Your task to perform on an android device: change text size in settings app Image 0: 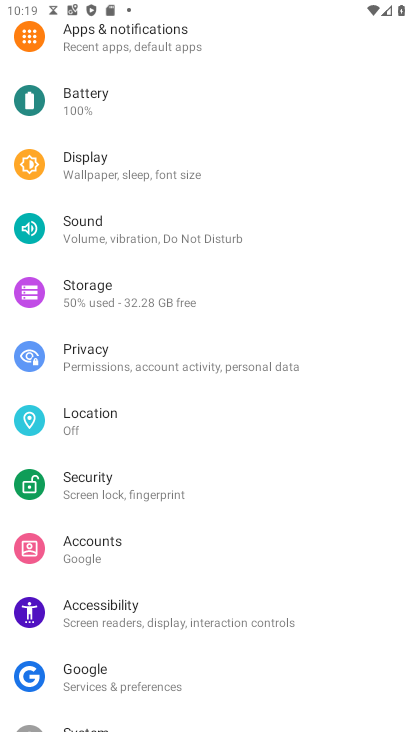
Step 0: click (141, 159)
Your task to perform on an android device: change text size in settings app Image 1: 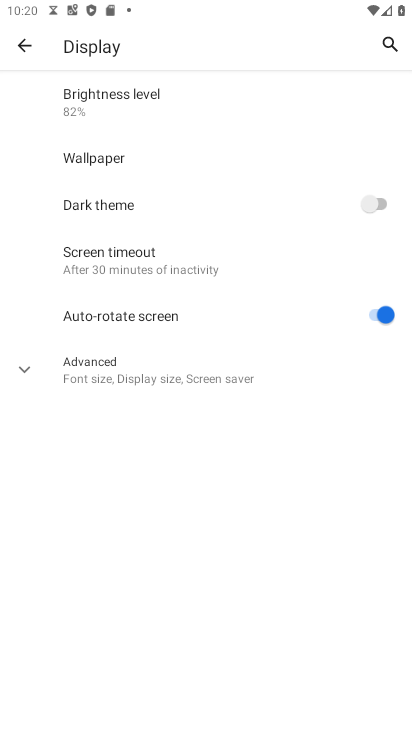
Step 1: click (95, 369)
Your task to perform on an android device: change text size in settings app Image 2: 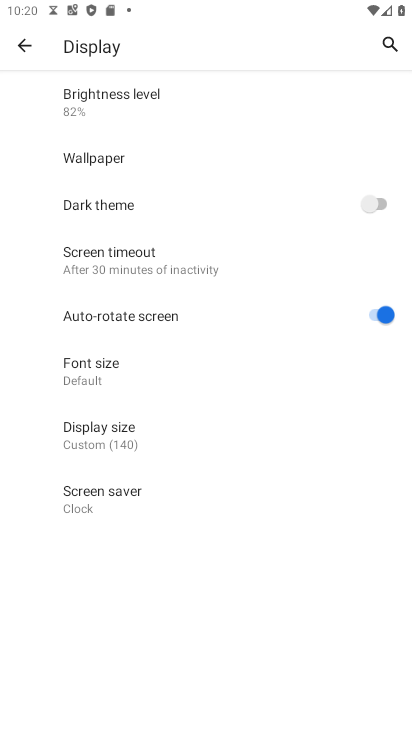
Step 2: click (95, 369)
Your task to perform on an android device: change text size in settings app Image 3: 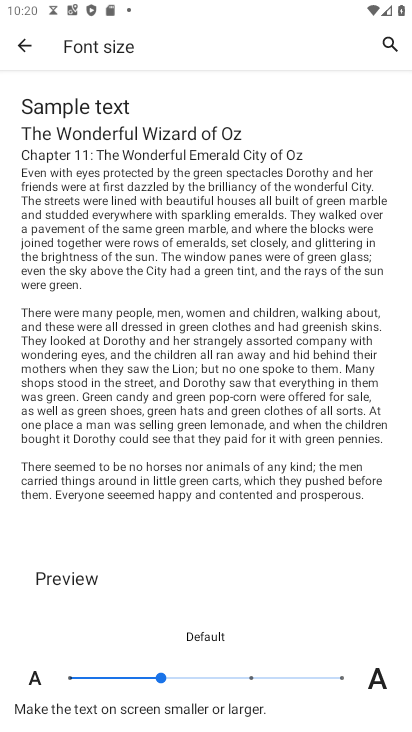
Step 3: click (248, 675)
Your task to perform on an android device: change text size in settings app Image 4: 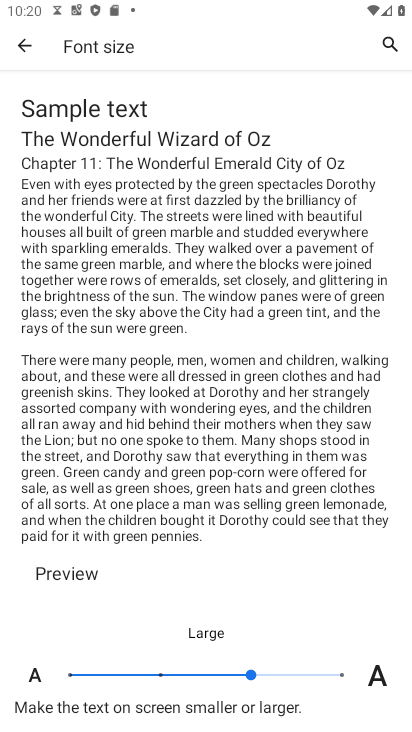
Step 4: task complete